Your task to perform on an android device: Open wifi settings Image 0: 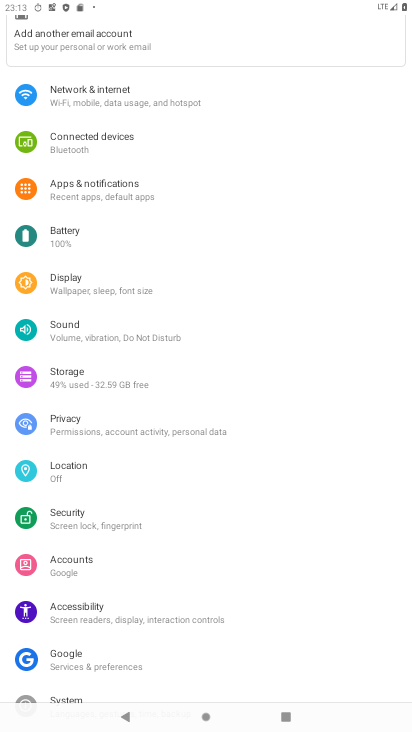
Step 0: press home button
Your task to perform on an android device: Open wifi settings Image 1: 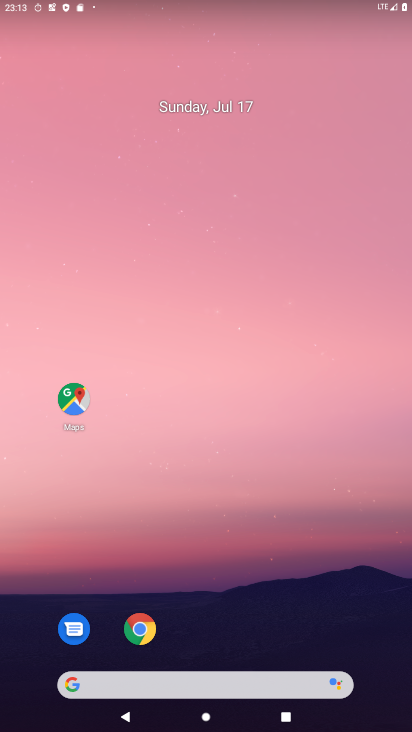
Step 1: drag from (233, 689) to (221, 93)
Your task to perform on an android device: Open wifi settings Image 2: 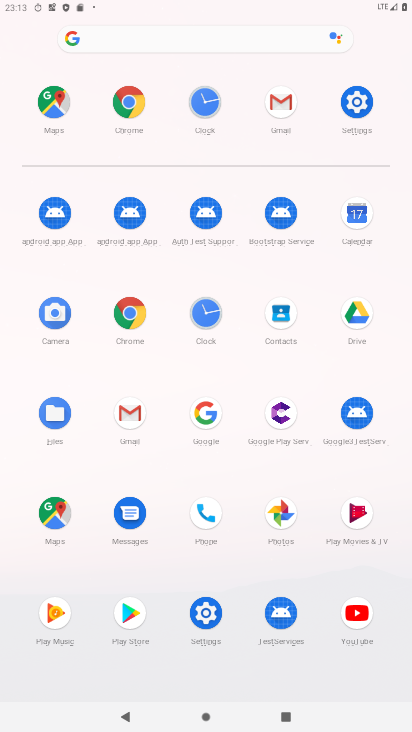
Step 2: click (362, 104)
Your task to perform on an android device: Open wifi settings Image 3: 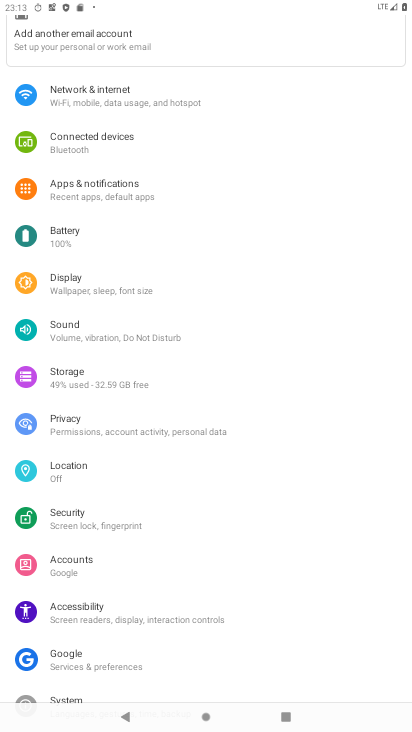
Step 3: click (118, 92)
Your task to perform on an android device: Open wifi settings Image 4: 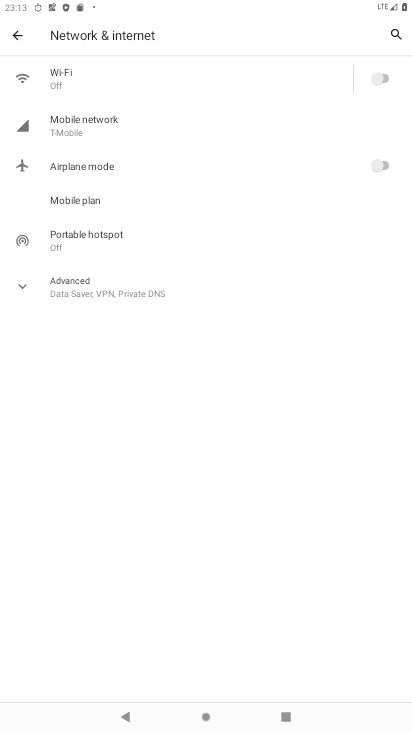
Step 4: click (73, 84)
Your task to perform on an android device: Open wifi settings Image 5: 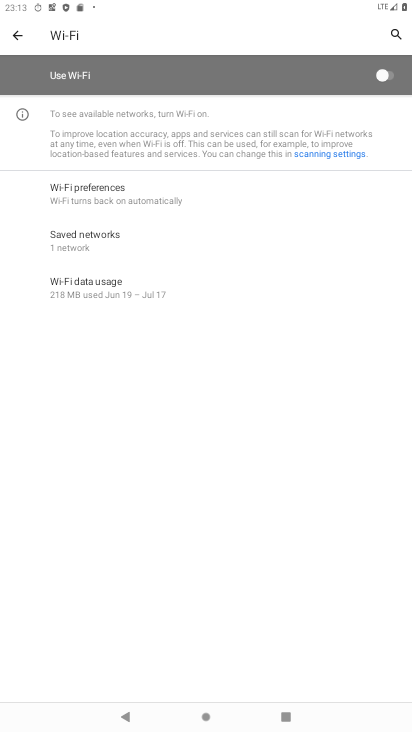
Step 5: task complete